Your task to perform on an android device: Go to ESPN.com Image 0: 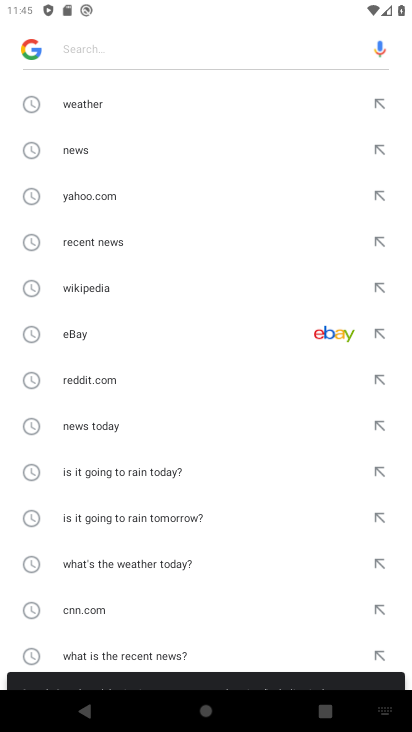
Step 0: press back button
Your task to perform on an android device: Go to ESPN.com Image 1: 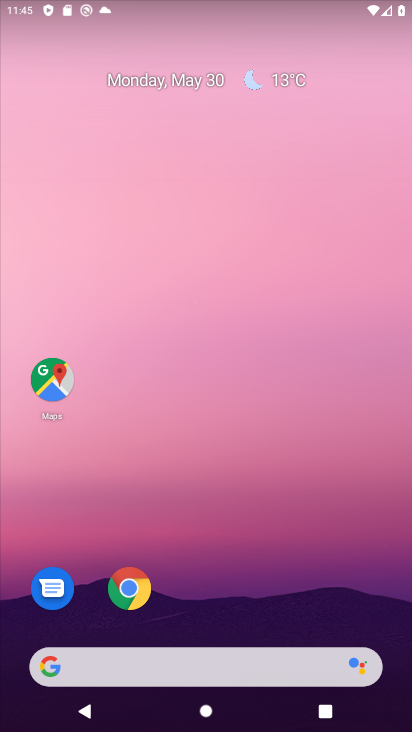
Step 1: click (134, 585)
Your task to perform on an android device: Go to ESPN.com Image 2: 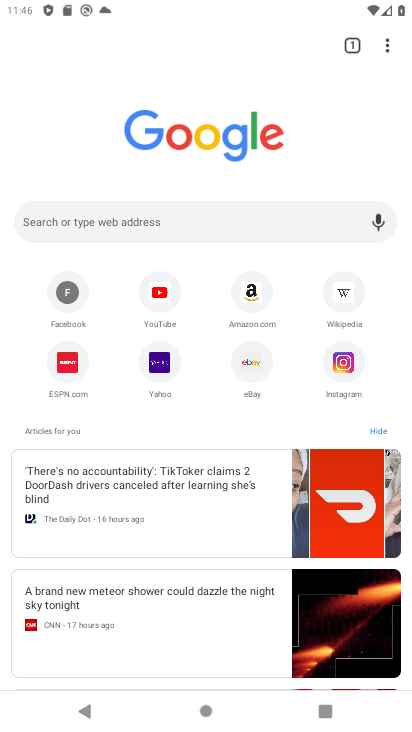
Step 2: click (193, 227)
Your task to perform on an android device: Go to ESPN.com Image 3: 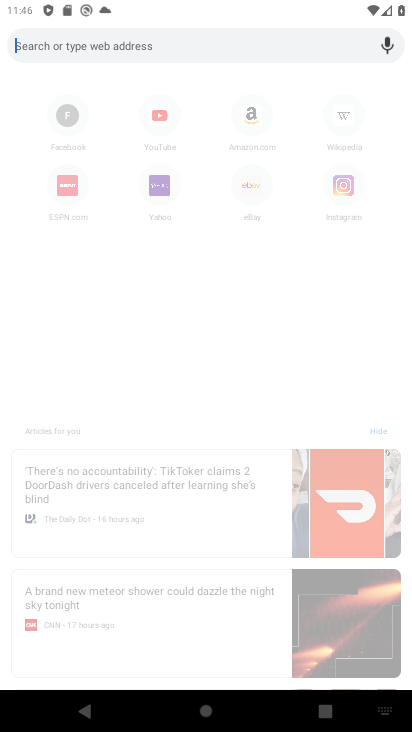
Step 3: type "ESPN.com"
Your task to perform on an android device: Go to ESPN.com Image 4: 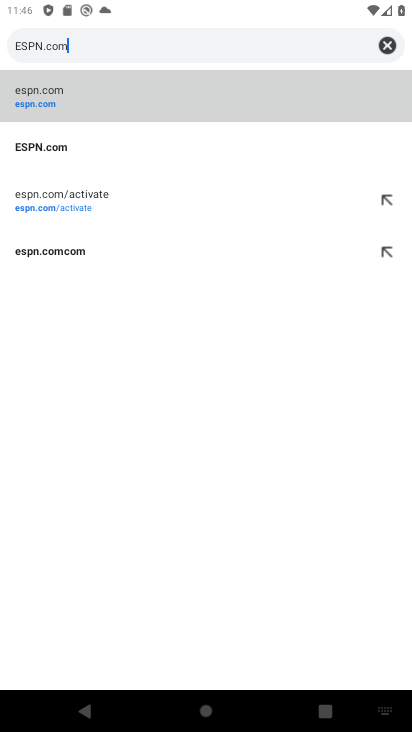
Step 4: click (41, 135)
Your task to perform on an android device: Go to ESPN.com Image 5: 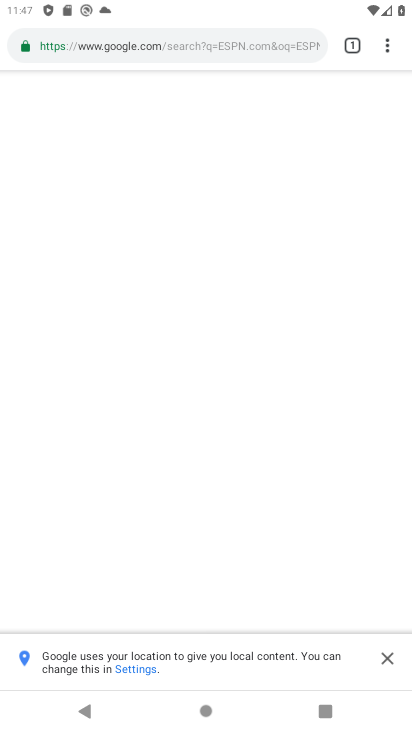
Step 5: task complete